Your task to perform on an android device: Open the map Image 0: 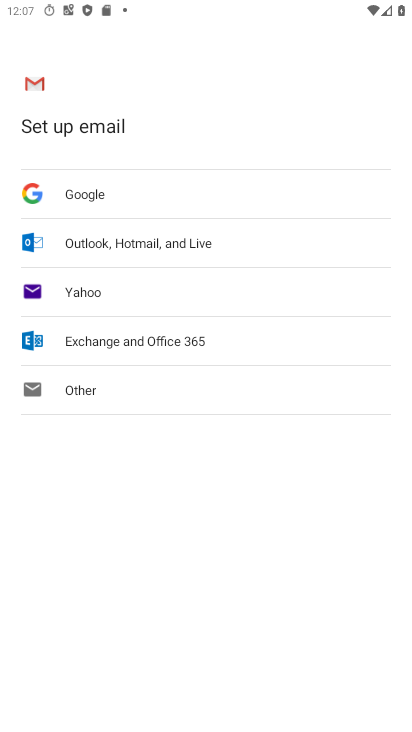
Step 0: press home button
Your task to perform on an android device: Open the map Image 1: 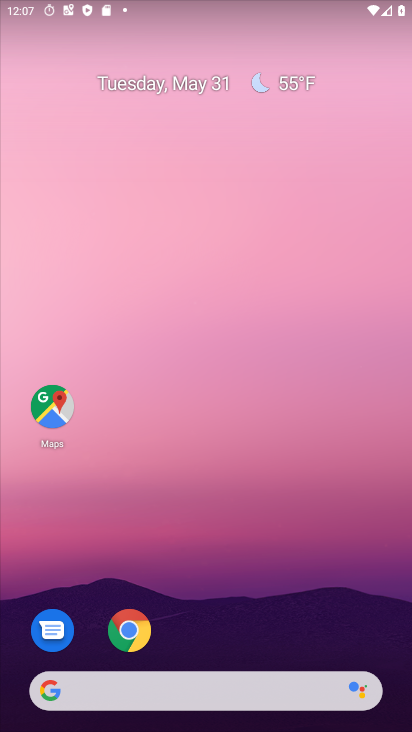
Step 1: click (47, 412)
Your task to perform on an android device: Open the map Image 2: 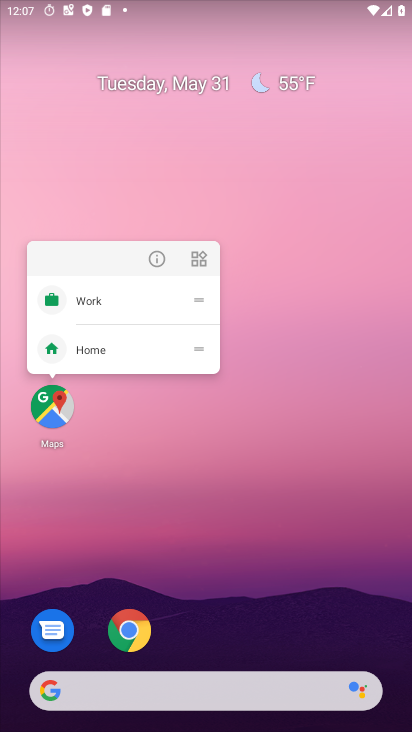
Step 2: click (55, 413)
Your task to perform on an android device: Open the map Image 3: 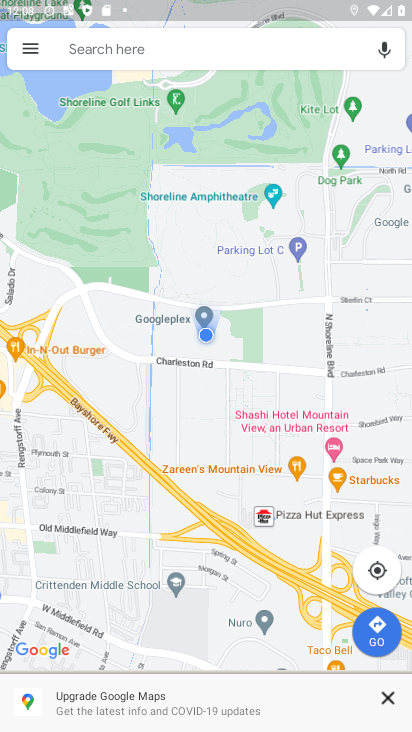
Step 3: task complete